Your task to perform on an android device: Show me the alarms in the clock app Image 0: 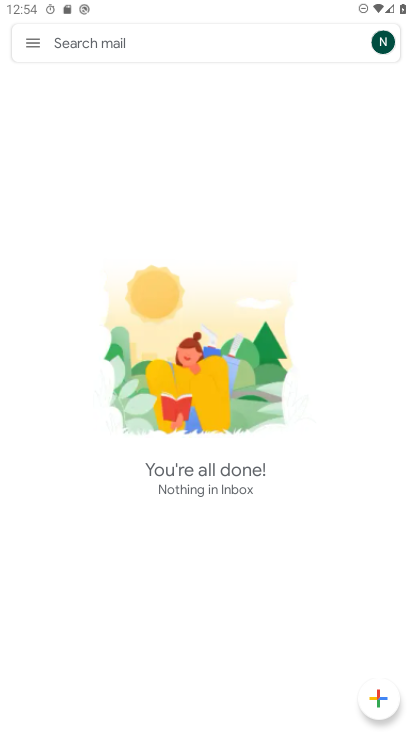
Step 0: press home button
Your task to perform on an android device: Show me the alarms in the clock app Image 1: 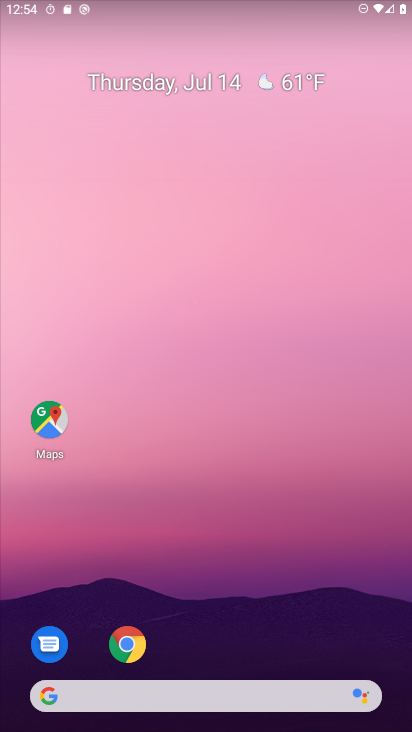
Step 1: drag from (313, 597) to (198, 126)
Your task to perform on an android device: Show me the alarms in the clock app Image 2: 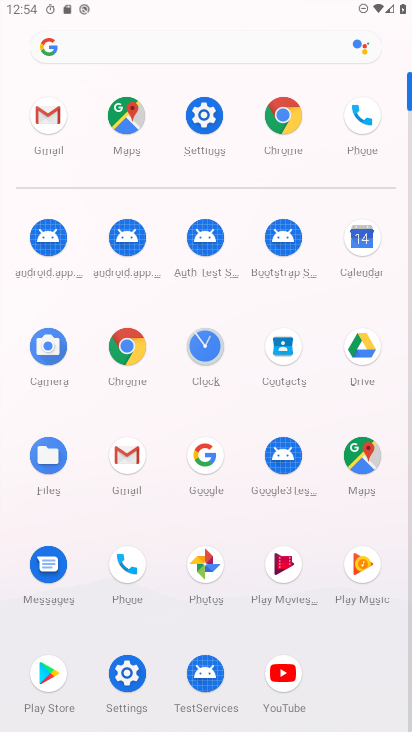
Step 2: click (213, 345)
Your task to perform on an android device: Show me the alarms in the clock app Image 3: 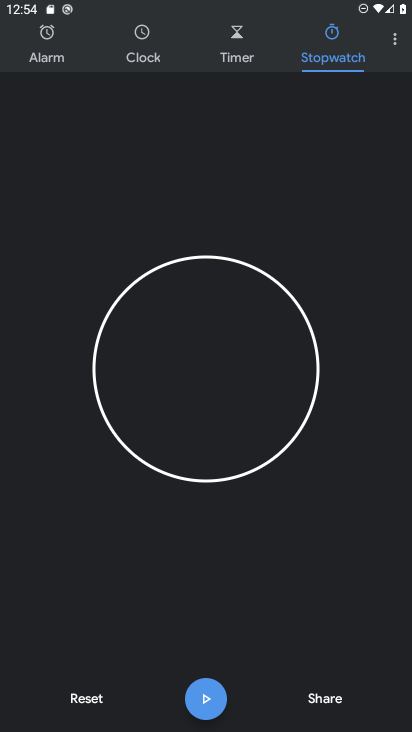
Step 3: click (52, 61)
Your task to perform on an android device: Show me the alarms in the clock app Image 4: 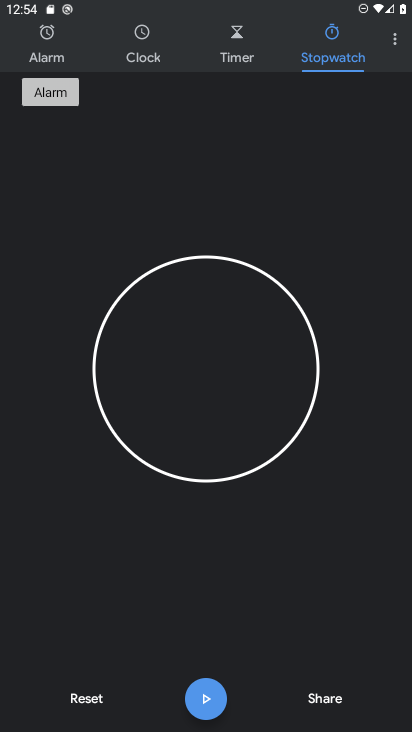
Step 4: click (52, 61)
Your task to perform on an android device: Show me the alarms in the clock app Image 5: 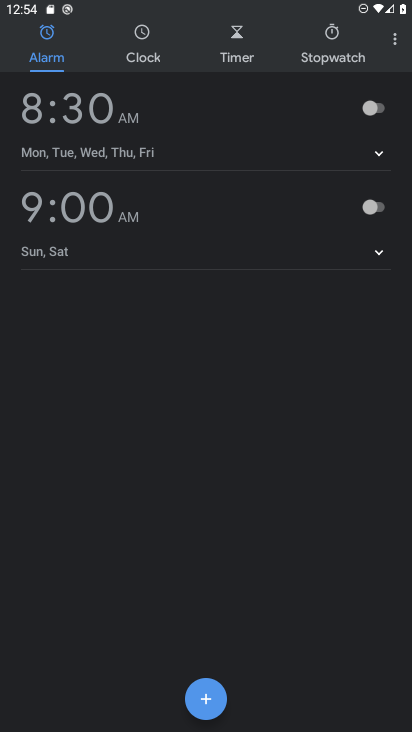
Step 5: task complete